Your task to perform on an android device: turn off translation in the chrome app Image 0: 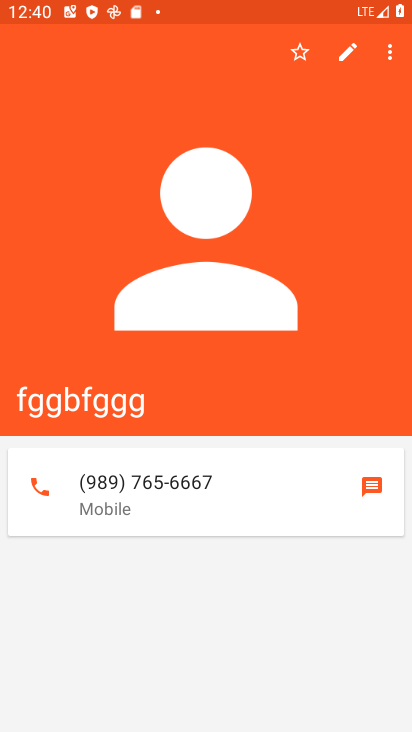
Step 0: press home button
Your task to perform on an android device: turn off translation in the chrome app Image 1: 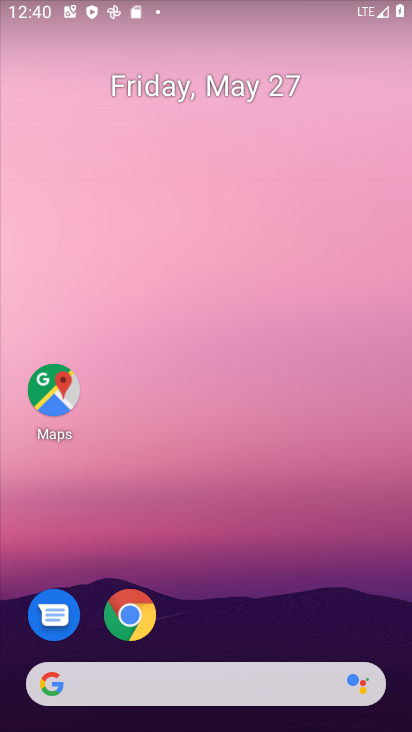
Step 1: drag from (280, 655) to (338, 36)
Your task to perform on an android device: turn off translation in the chrome app Image 2: 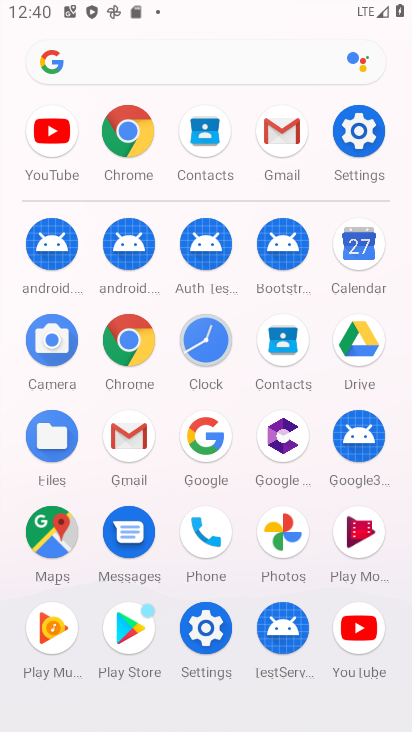
Step 2: click (115, 344)
Your task to perform on an android device: turn off translation in the chrome app Image 3: 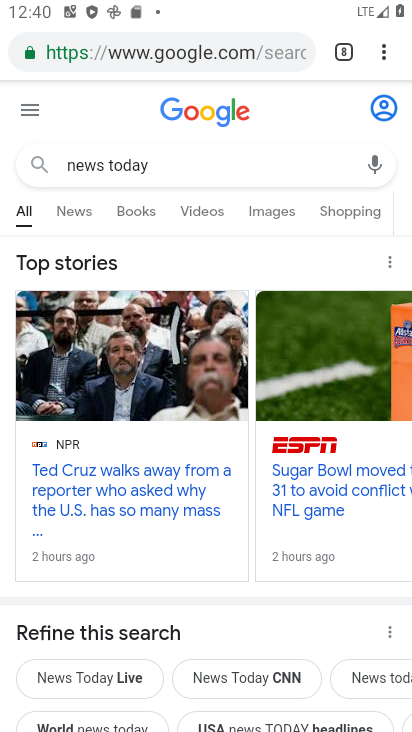
Step 3: drag from (389, 50) to (223, 572)
Your task to perform on an android device: turn off translation in the chrome app Image 4: 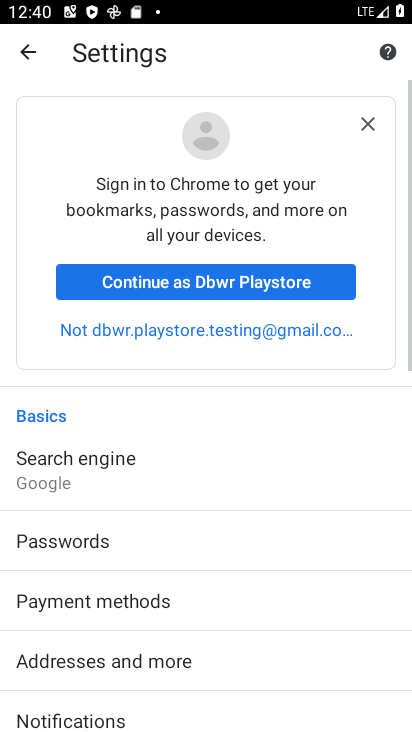
Step 4: drag from (122, 648) to (239, 18)
Your task to perform on an android device: turn off translation in the chrome app Image 5: 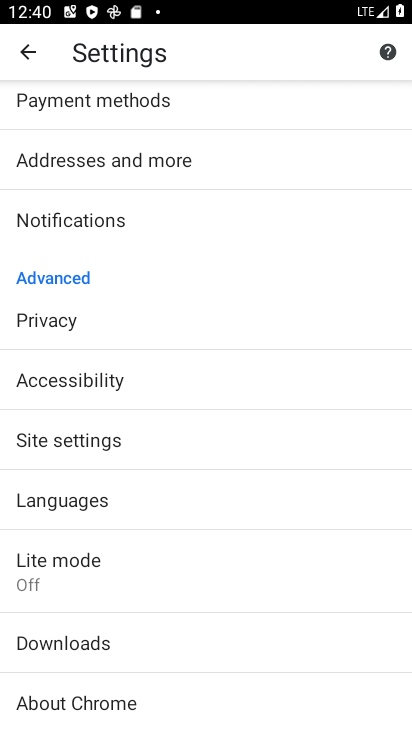
Step 5: click (93, 573)
Your task to perform on an android device: turn off translation in the chrome app Image 6: 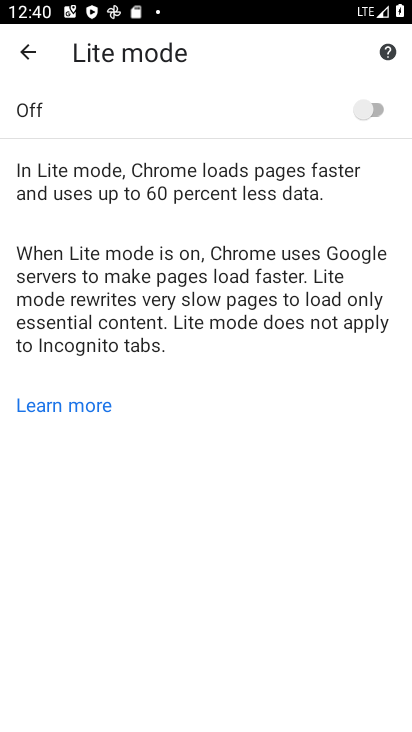
Step 6: task complete